Your task to perform on an android device: Open calendar and show me the second week of next month Image 0: 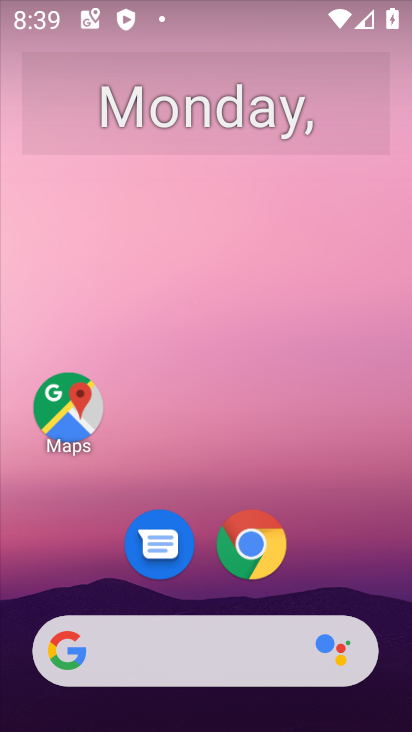
Step 0: drag from (330, 492) to (188, 66)
Your task to perform on an android device: Open calendar and show me the second week of next month Image 1: 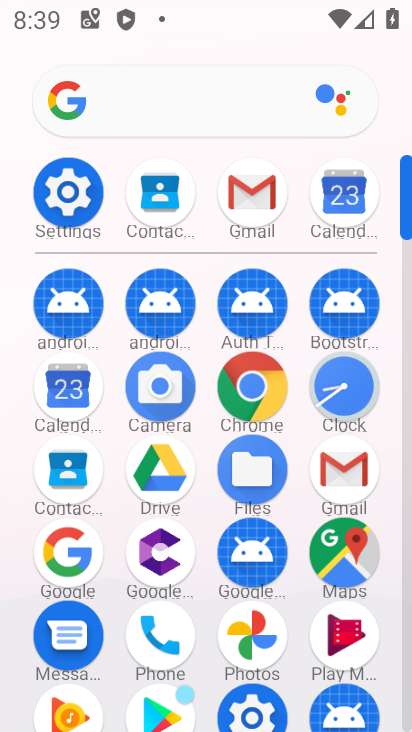
Step 1: click (64, 391)
Your task to perform on an android device: Open calendar and show me the second week of next month Image 2: 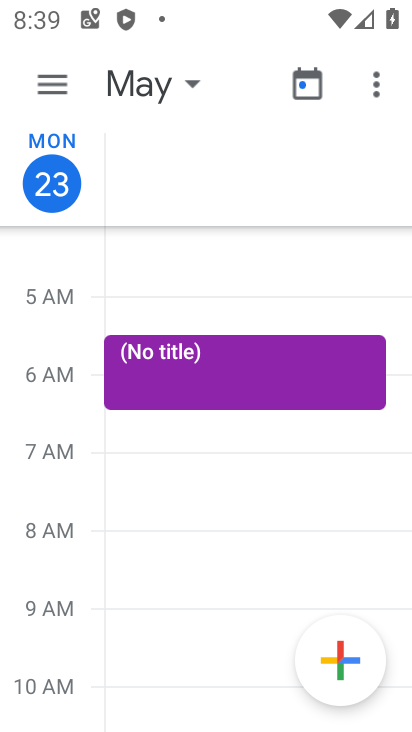
Step 2: click (177, 82)
Your task to perform on an android device: Open calendar and show me the second week of next month Image 3: 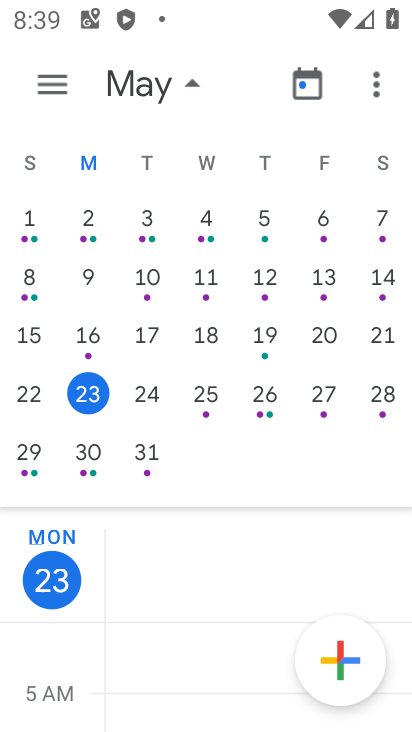
Step 3: click (46, 73)
Your task to perform on an android device: Open calendar and show me the second week of next month Image 4: 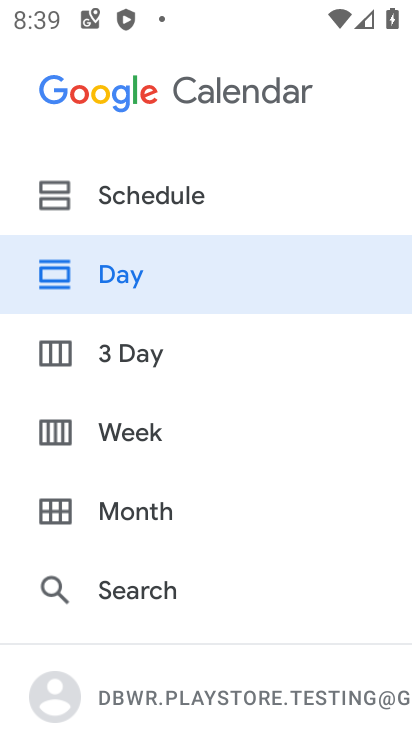
Step 4: click (129, 434)
Your task to perform on an android device: Open calendar and show me the second week of next month Image 5: 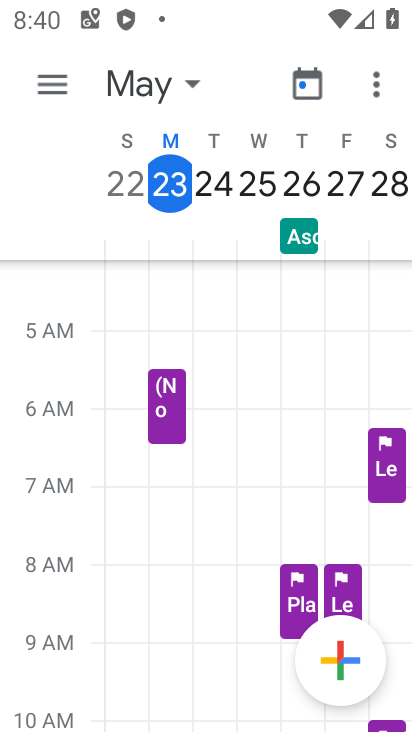
Step 5: click (195, 75)
Your task to perform on an android device: Open calendar and show me the second week of next month Image 6: 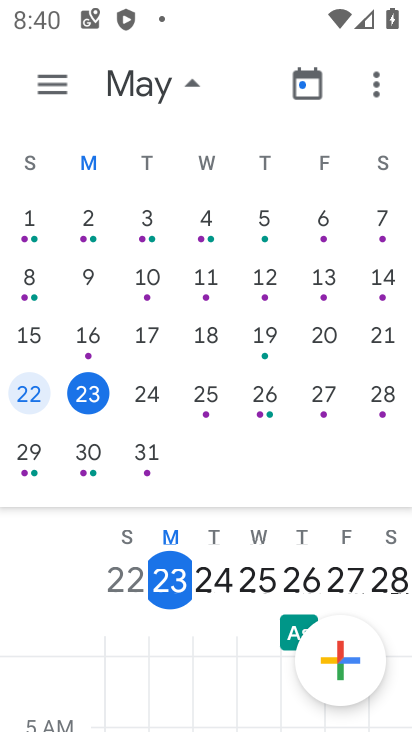
Step 6: drag from (328, 293) to (3, 231)
Your task to perform on an android device: Open calendar and show me the second week of next month Image 7: 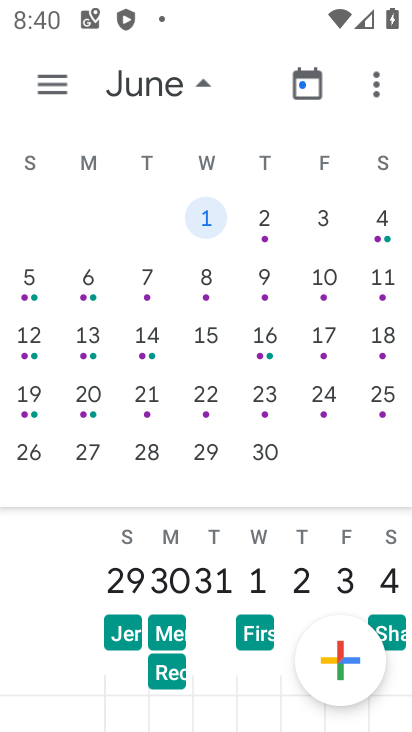
Step 7: click (205, 279)
Your task to perform on an android device: Open calendar and show me the second week of next month Image 8: 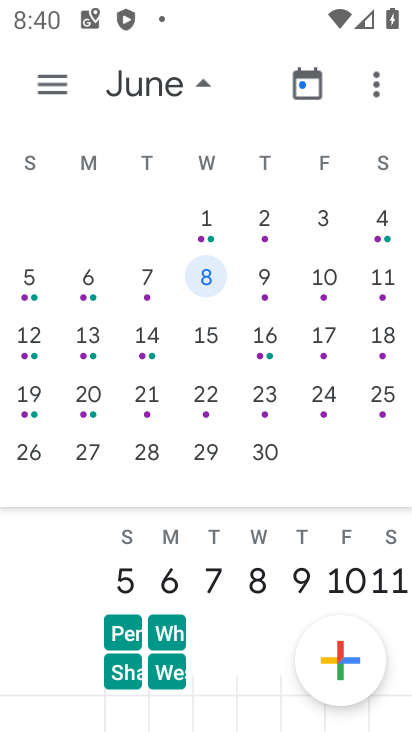
Step 8: task complete